Your task to perform on an android device: snooze an email in the gmail app Image 0: 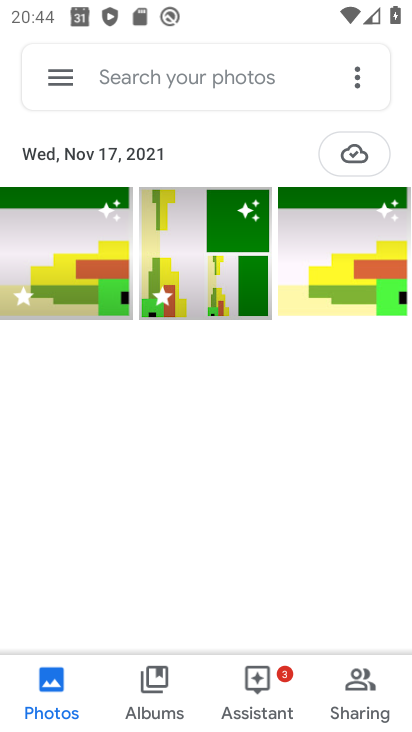
Step 0: press home button
Your task to perform on an android device: snooze an email in the gmail app Image 1: 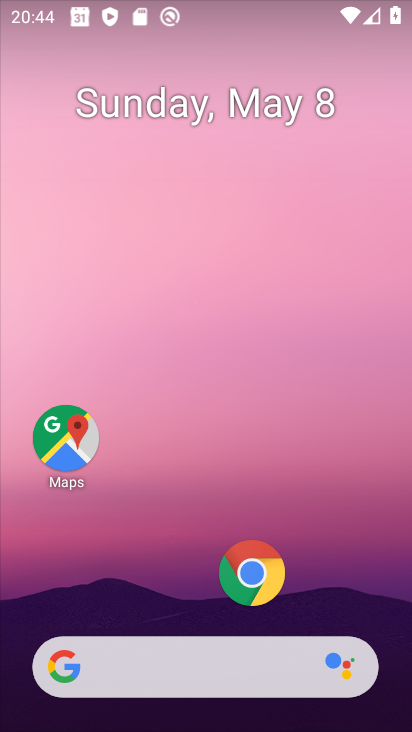
Step 1: drag from (144, 587) to (190, 170)
Your task to perform on an android device: snooze an email in the gmail app Image 2: 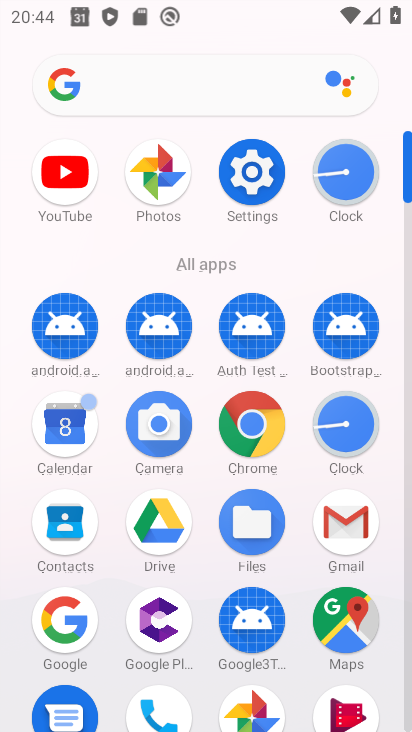
Step 2: click (348, 527)
Your task to perform on an android device: snooze an email in the gmail app Image 3: 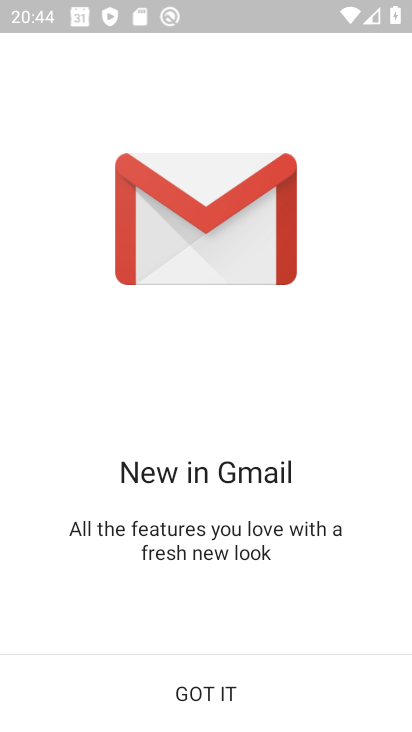
Step 3: click (205, 704)
Your task to perform on an android device: snooze an email in the gmail app Image 4: 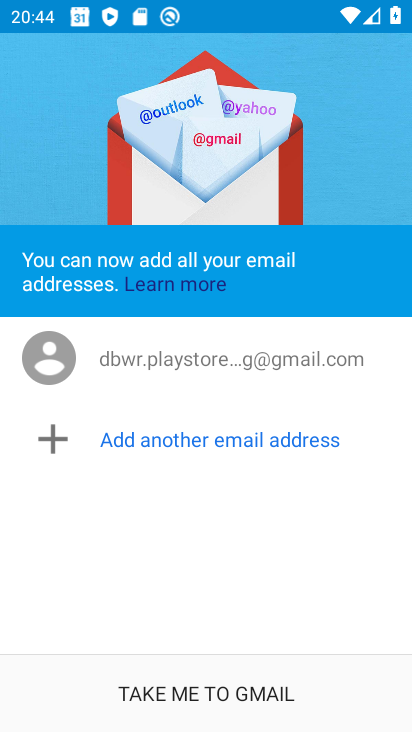
Step 4: click (190, 691)
Your task to perform on an android device: snooze an email in the gmail app Image 5: 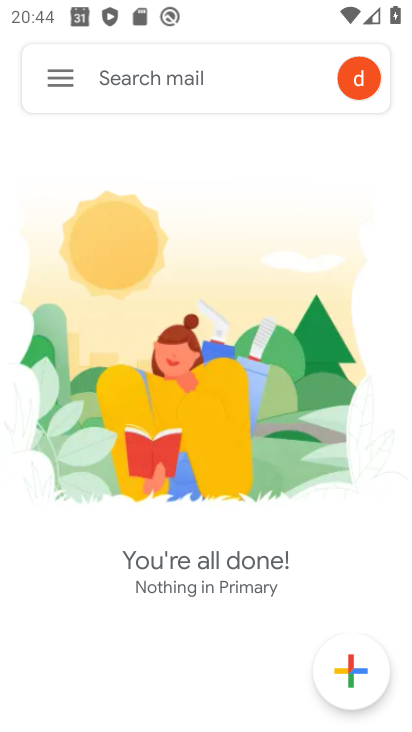
Step 5: click (57, 83)
Your task to perform on an android device: snooze an email in the gmail app Image 6: 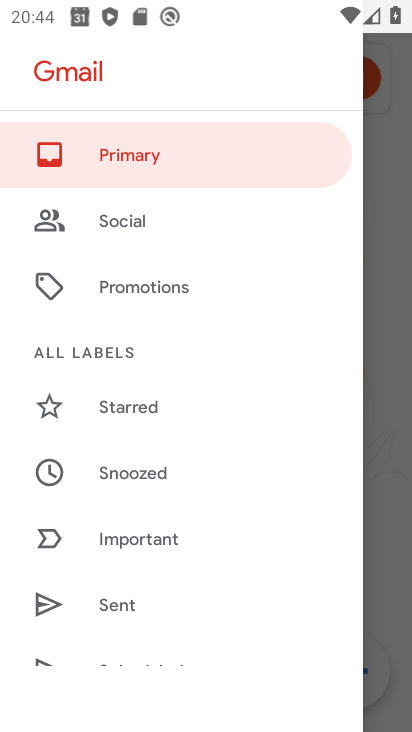
Step 6: drag from (196, 608) to (223, 261)
Your task to perform on an android device: snooze an email in the gmail app Image 7: 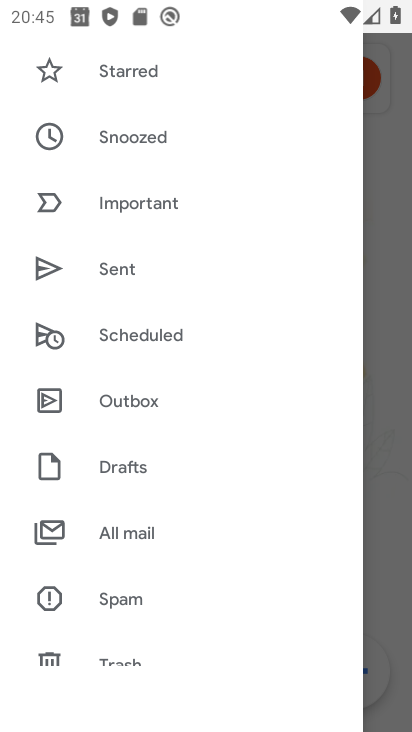
Step 7: click (124, 535)
Your task to perform on an android device: snooze an email in the gmail app Image 8: 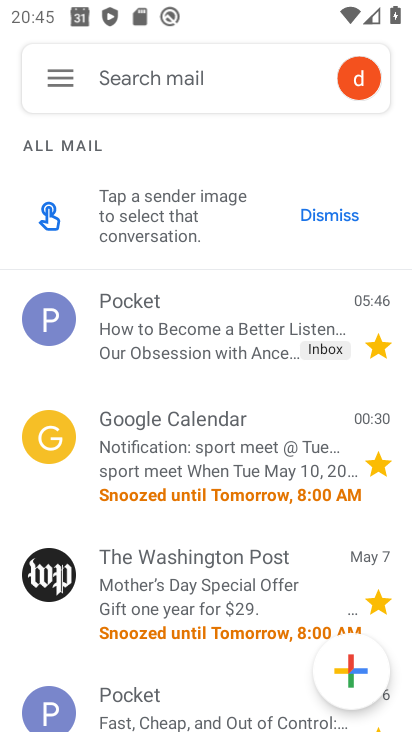
Step 8: drag from (203, 585) to (223, 234)
Your task to perform on an android device: snooze an email in the gmail app Image 9: 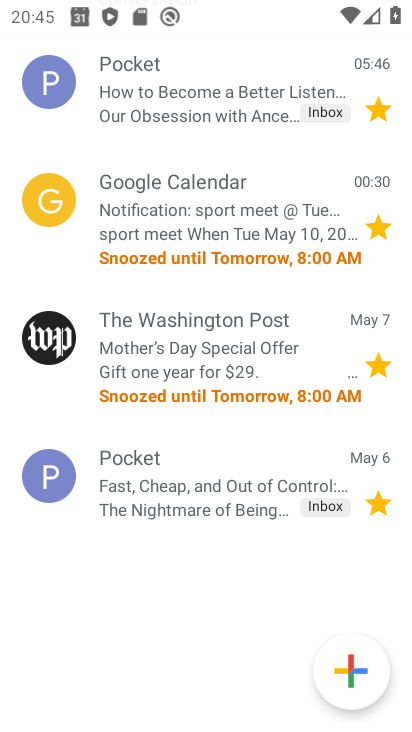
Step 9: click (142, 484)
Your task to perform on an android device: snooze an email in the gmail app Image 10: 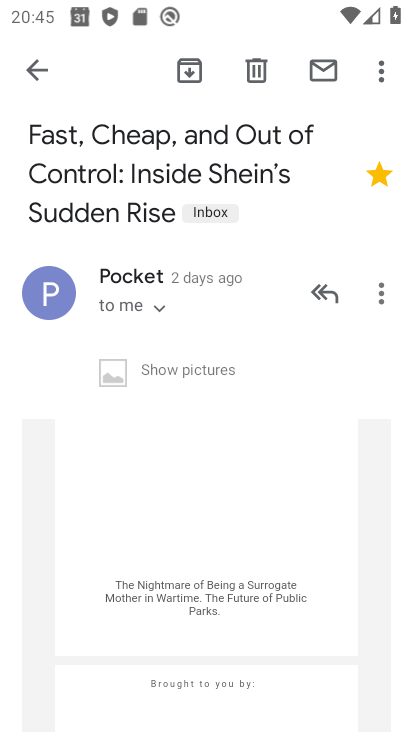
Step 10: click (382, 294)
Your task to perform on an android device: snooze an email in the gmail app Image 11: 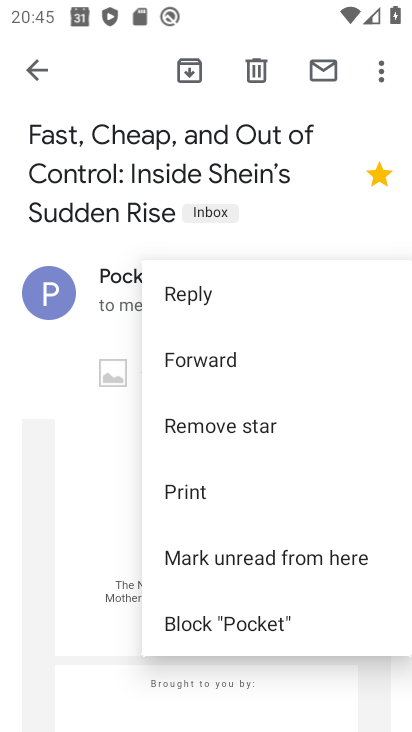
Step 11: click (382, 66)
Your task to perform on an android device: snooze an email in the gmail app Image 12: 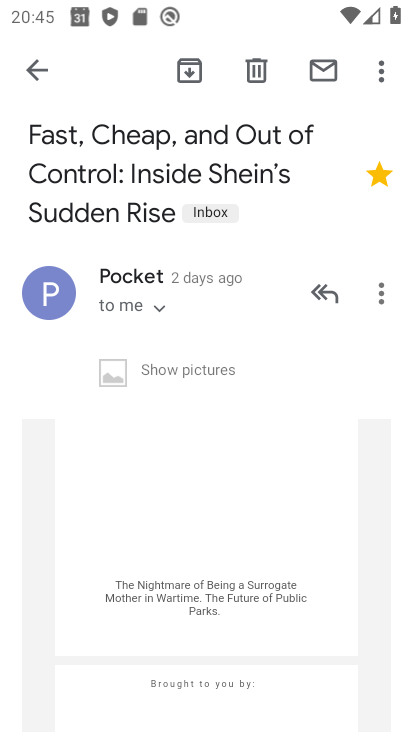
Step 12: click (380, 66)
Your task to perform on an android device: snooze an email in the gmail app Image 13: 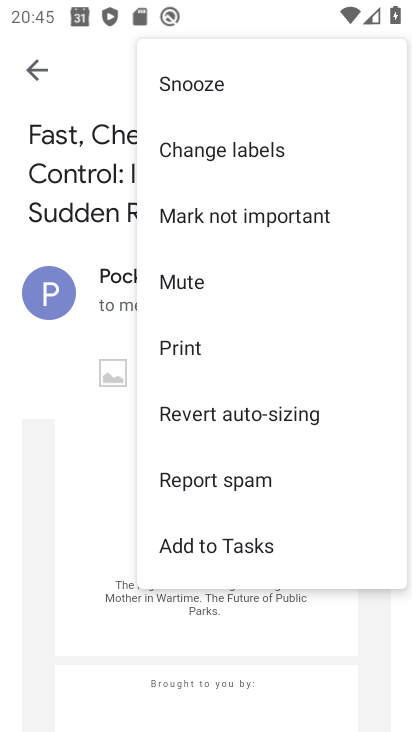
Step 13: drag from (295, 456) to (332, 186)
Your task to perform on an android device: snooze an email in the gmail app Image 14: 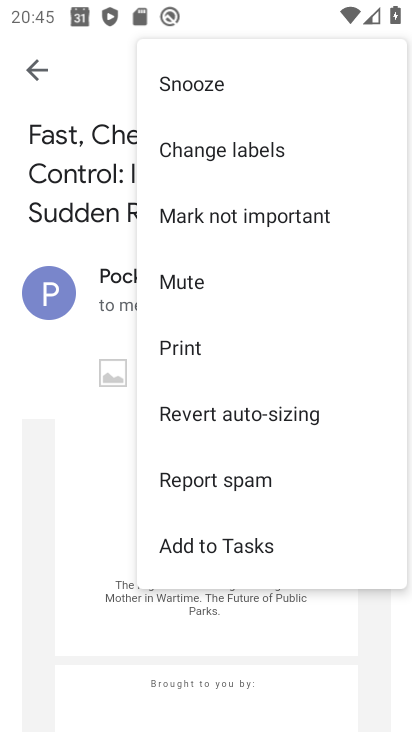
Step 14: click (222, 87)
Your task to perform on an android device: snooze an email in the gmail app Image 15: 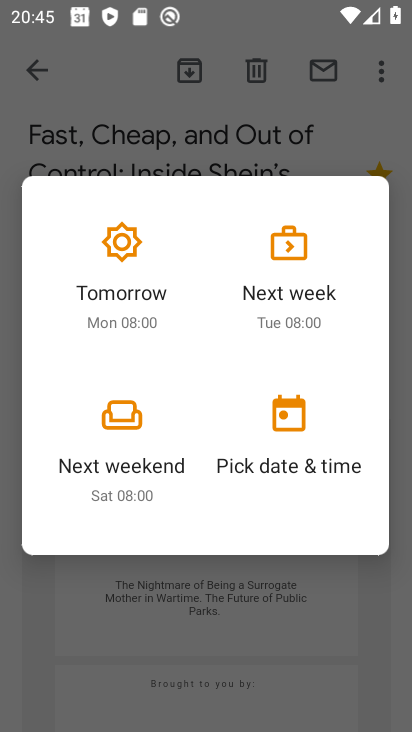
Step 15: click (128, 413)
Your task to perform on an android device: snooze an email in the gmail app Image 16: 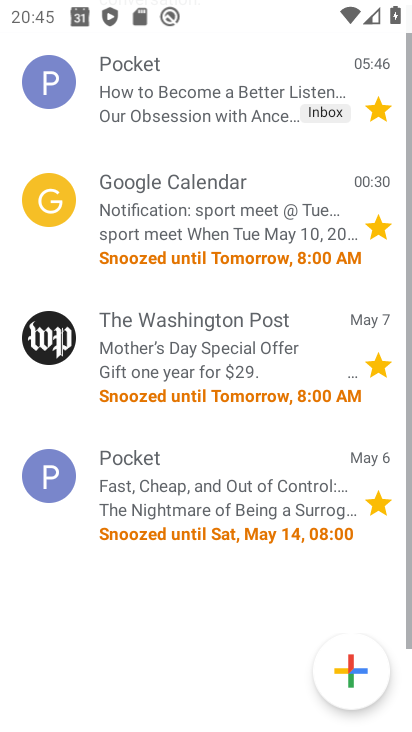
Step 16: task complete